Your task to perform on an android device: toggle location history Image 0: 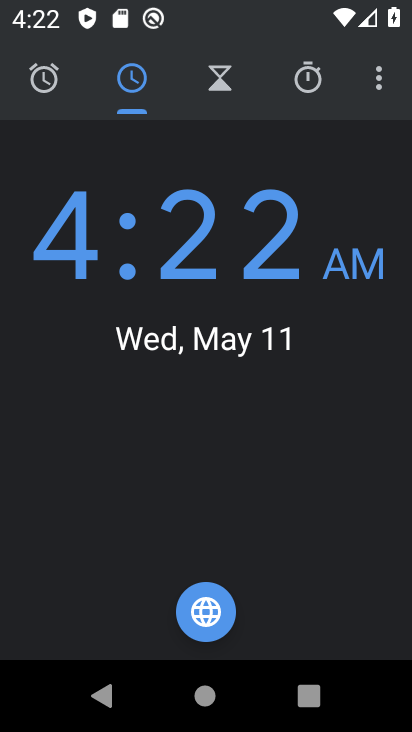
Step 0: press home button
Your task to perform on an android device: toggle location history Image 1: 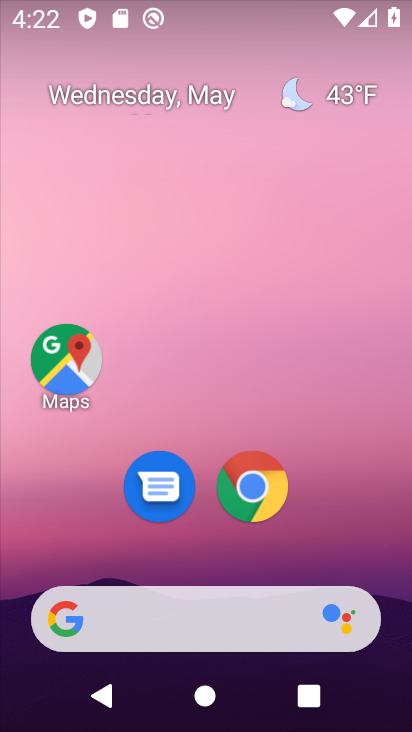
Step 1: drag from (322, 537) to (243, 31)
Your task to perform on an android device: toggle location history Image 2: 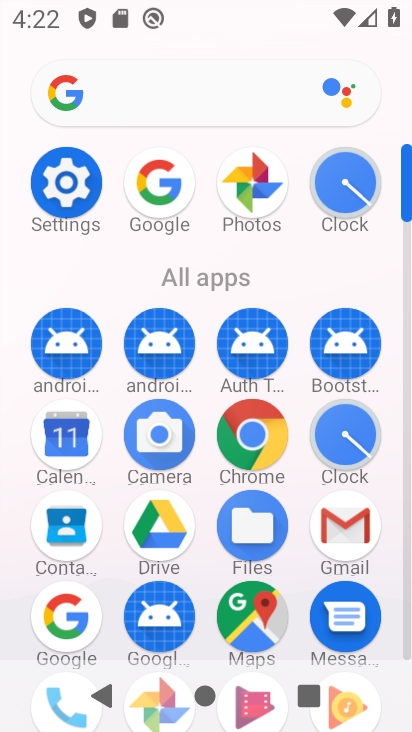
Step 2: click (64, 179)
Your task to perform on an android device: toggle location history Image 3: 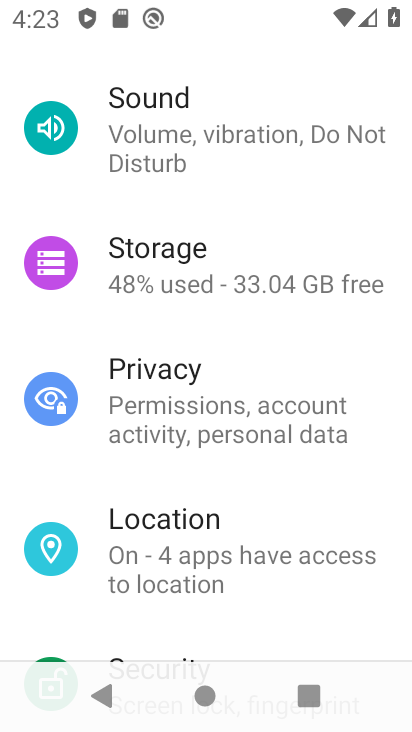
Step 3: click (145, 511)
Your task to perform on an android device: toggle location history Image 4: 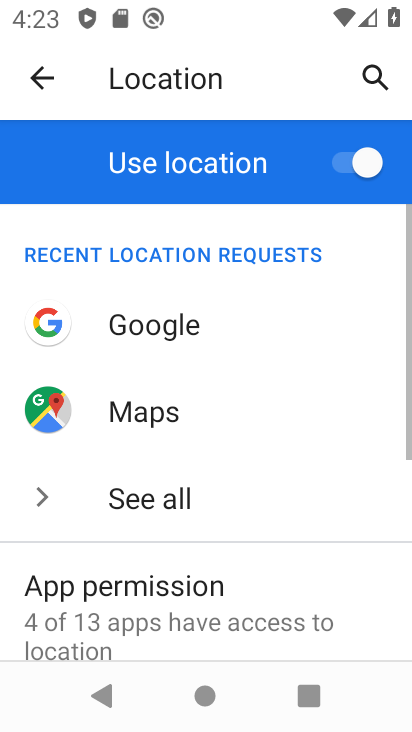
Step 4: drag from (208, 502) to (279, 297)
Your task to perform on an android device: toggle location history Image 5: 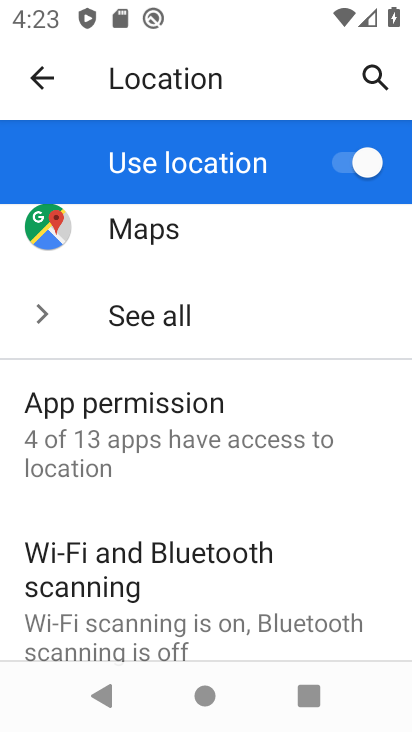
Step 5: drag from (166, 524) to (253, 344)
Your task to perform on an android device: toggle location history Image 6: 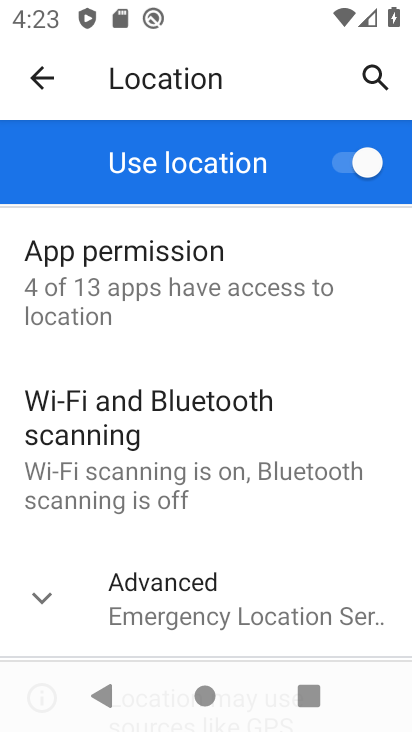
Step 6: click (164, 588)
Your task to perform on an android device: toggle location history Image 7: 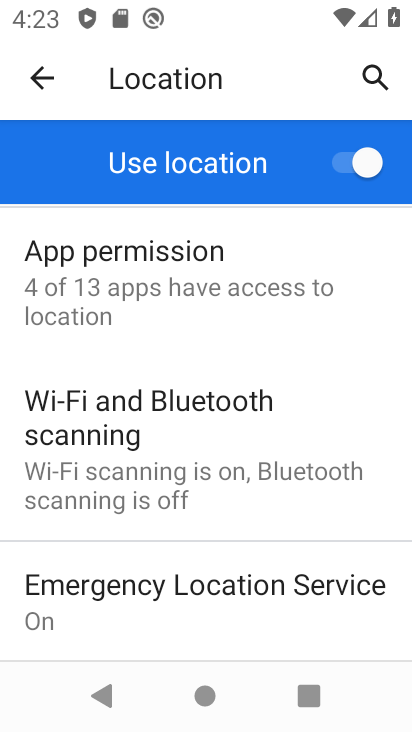
Step 7: drag from (193, 548) to (231, 386)
Your task to perform on an android device: toggle location history Image 8: 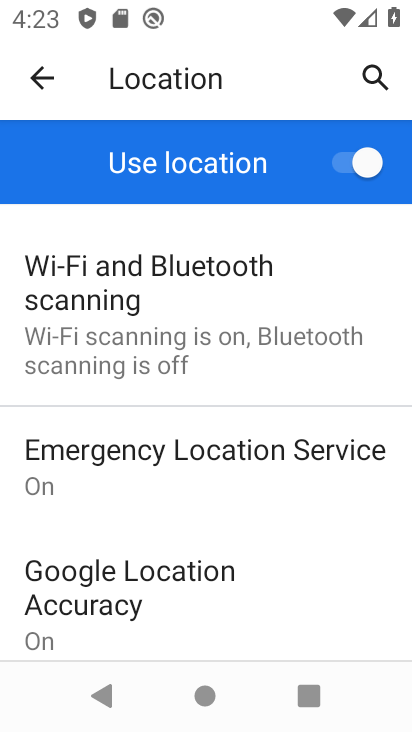
Step 8: drag from (163, 525) to (262, 378)
Your task to perform on an android device: toggle location history Image 9: 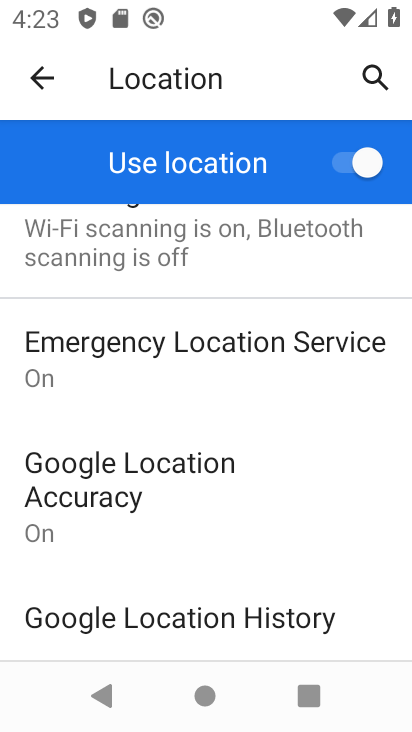
Step 9: drag from (168, 568) to (295, 418)
Your task to perform on an android device: toggle location history Image 10: 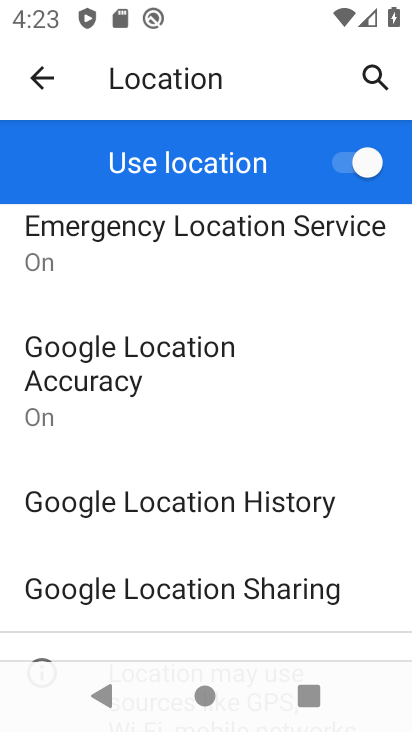
Step 10: click (209, 501)
Your task to perform on an android device: toggle location history Image 11: 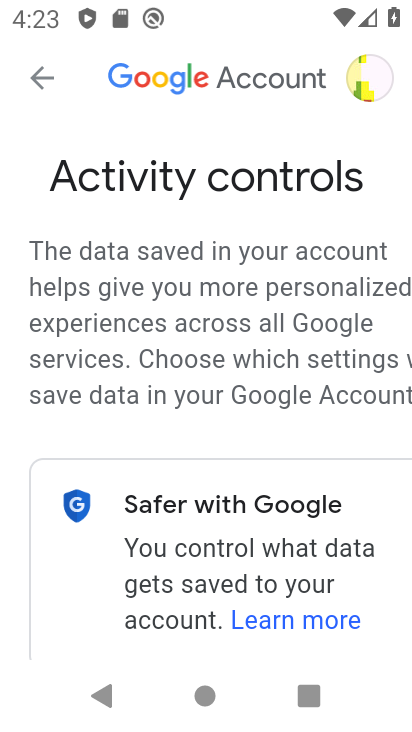
Step 11: drag from (207, 619) to (259, 372)
Your task to perform on an android device: toggle location history Image 12: 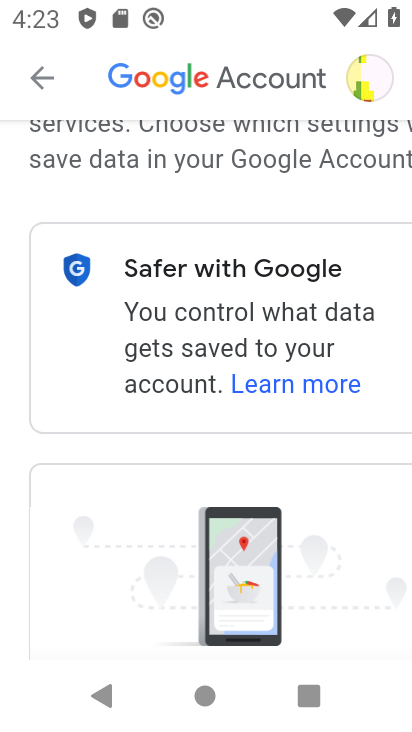
Step 12: drag from (182, 576) to (246, 328)
Your task to perform on an android device: toggle location history Image 13: 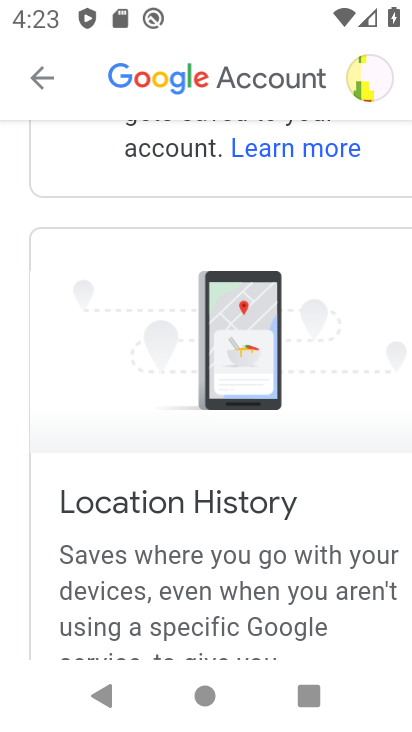
Step 13: drag from (180, 604) to (275, 315)
Your task to perform on an android device: toggle location history Image 14: 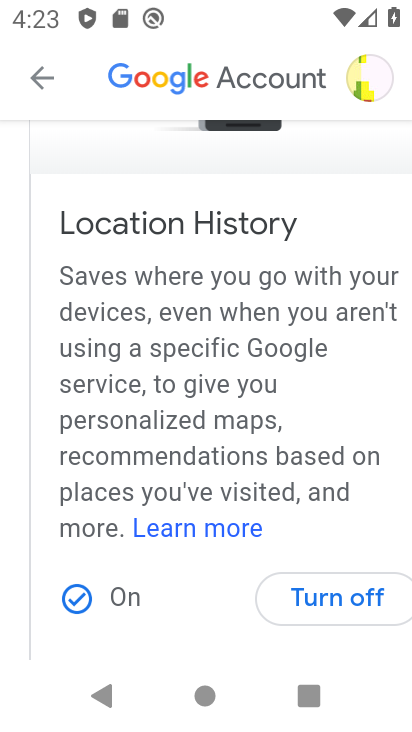
Step 14: click (327, 595)
Your task to perform on an android device: toggle location history Image 15: 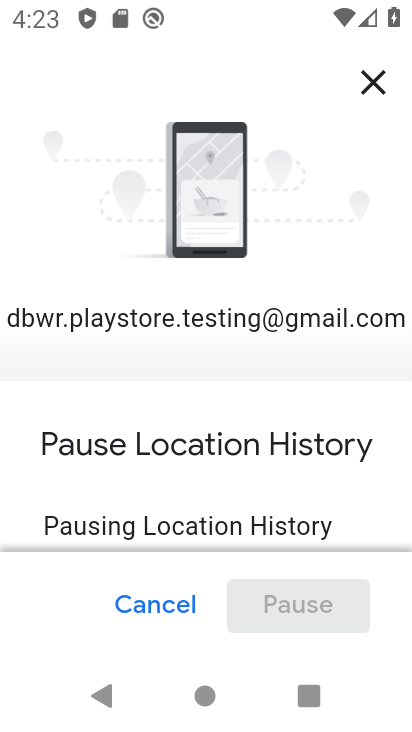
Step 15: drag from (292, 513) to (371, 220)
Your task to perform on an android device: toggle location history Image 16: 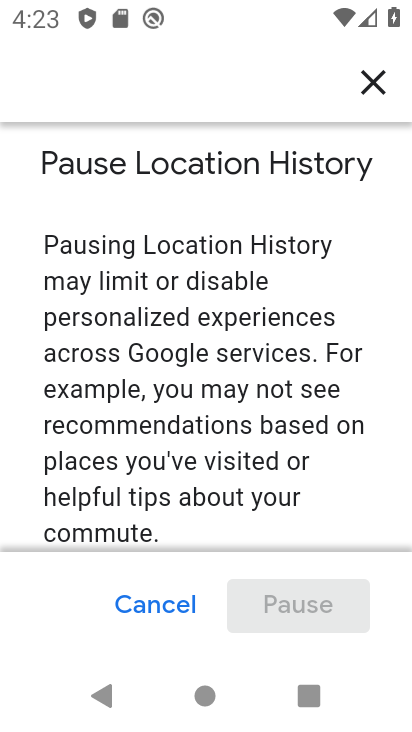
Step 16: drag from (307, 505) to (339, 297)
Your task to perform on an android device: toggle location history Image 17: 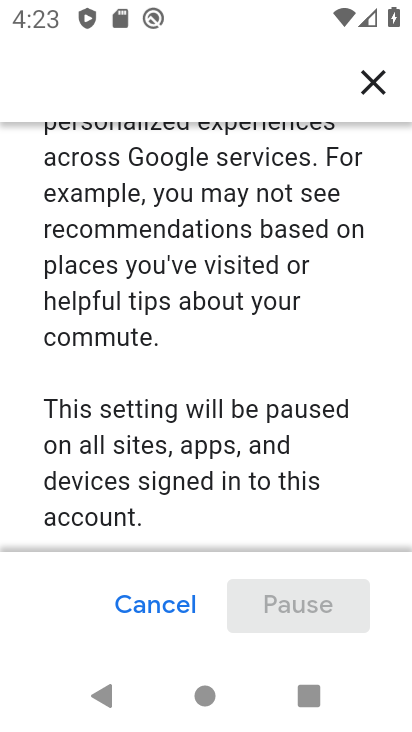
Step 17: drag from (280, 541) to (358, 314)
Your task to perform on an android device: toggle location history Image 18: 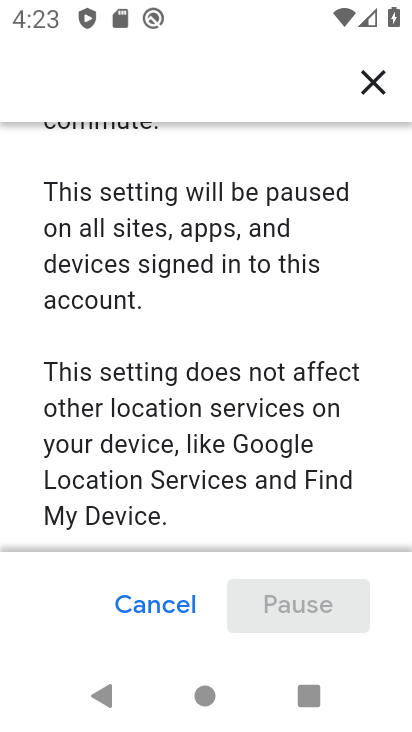
Step 18: drag from (281, 489) to (319, 266)
Your task to perform on an android device: toggle location history Image 19: 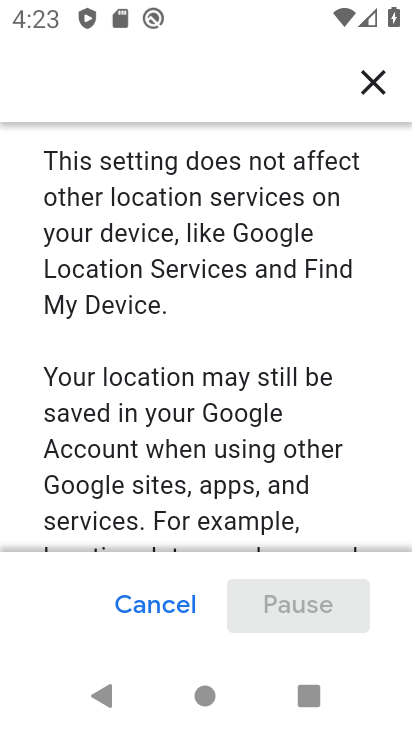
Step 19: drag from (252, 487) to (339, 270)
Your task to perform on an android device: toggle location history Image 20: 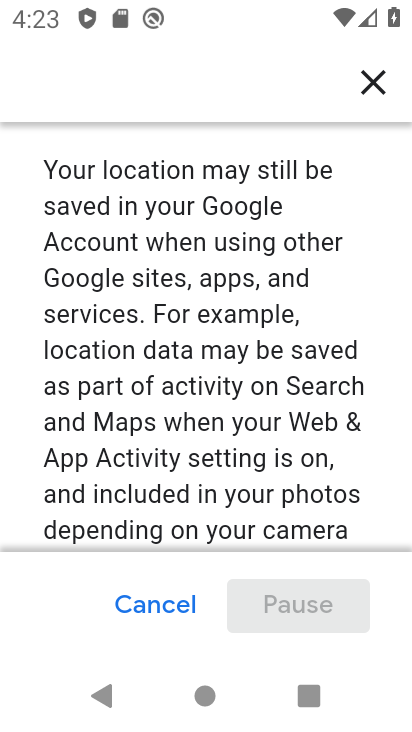
Step 20: drag from (261, 464) to (353, 278)
Your task to perform on an android device: toggle location history Image 21: 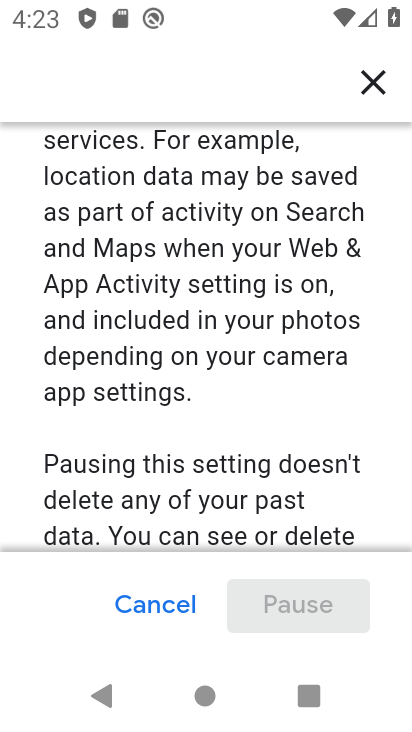
Step 21: drag from (273, 496) to (362, 275)
Your task to perform on an android device: toggle location history Image 22: 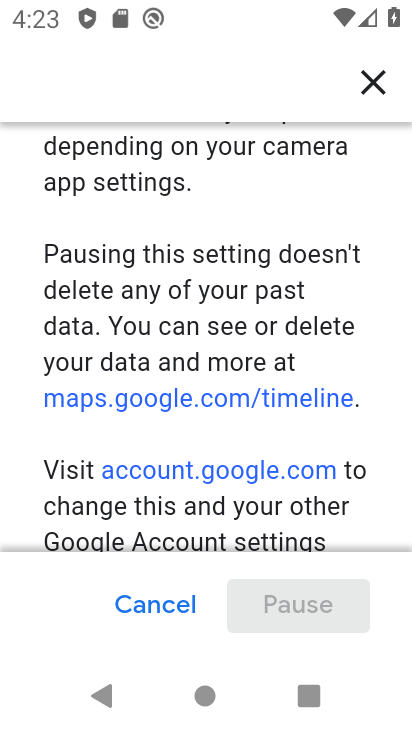
Step 22: drag from (258, 529) to (344, 325)
Your task to perform on an android device: toggle location history Image 23: 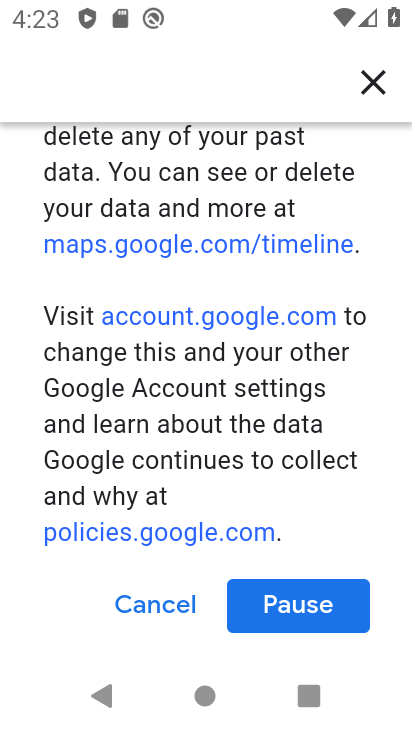
Step 23: click (298, 606)
Your task to perform on an android device: toggle location history Image 24: 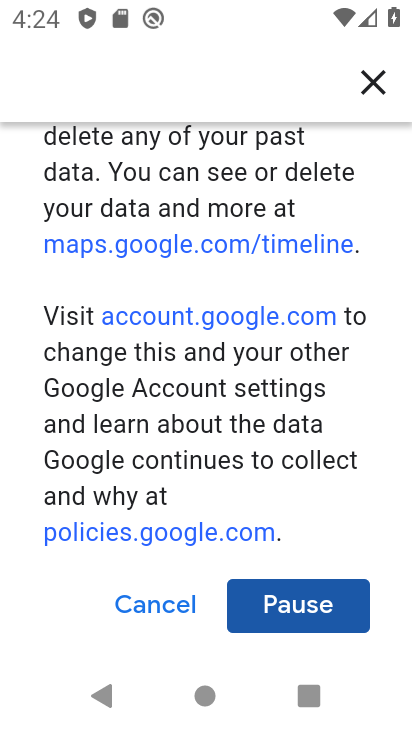
Step 24: click (298, 606)
Your task to perform on an android device: toggle location history Image 25: 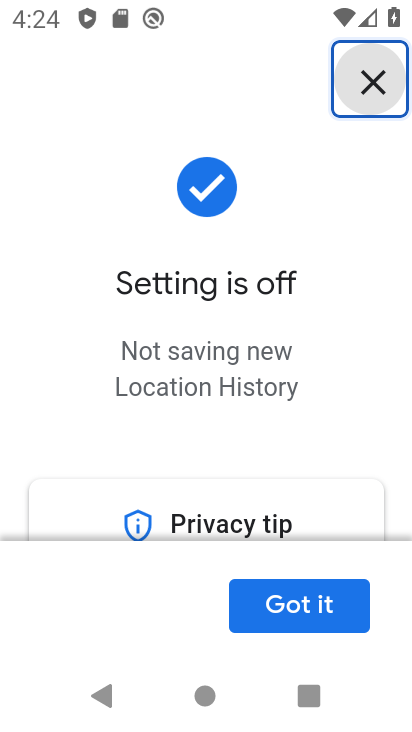
Step 25: click (298, 606)
Your task to perform on an android device: toggle location history Image 26: 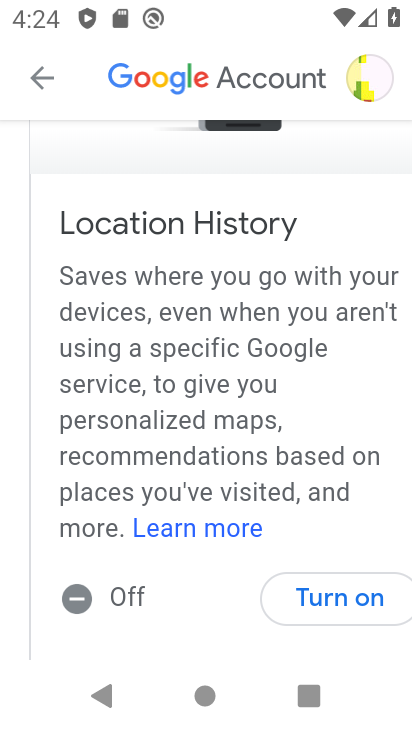
Step 26: task complete